Your task to perform on an android device: toggle wifi Image 0: 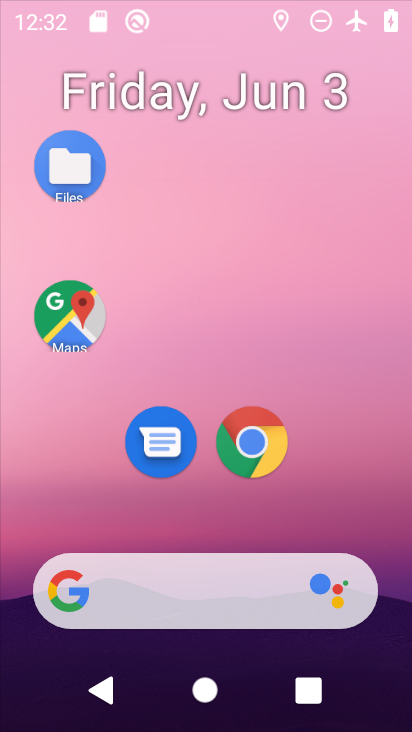
Step 0: click (347, 472)
Your task to perform on an android device: toggle wifi Image 1: 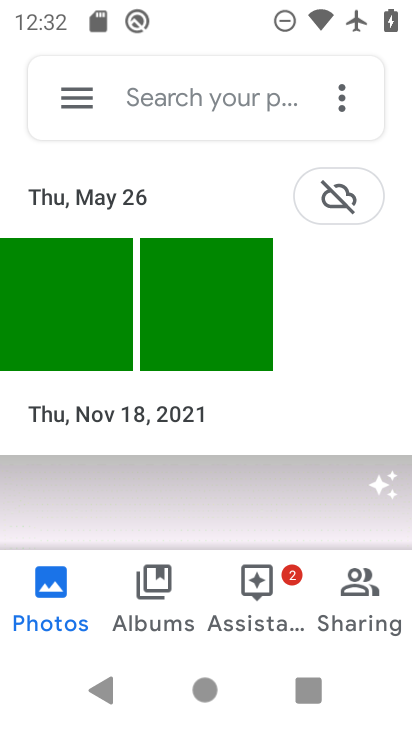
Step 1: press back button
Your task to perform on an android device: toggle wifi Image 2: 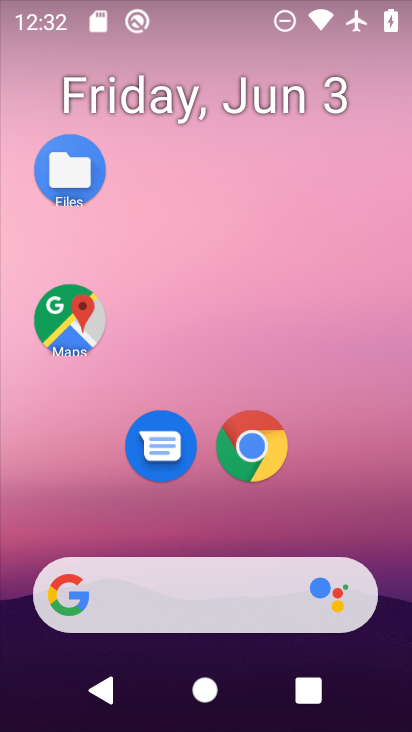
Step 2: drag from (254, 663) to (146, 303)
Your task to perform on an android device: toggle wifi Image 3: 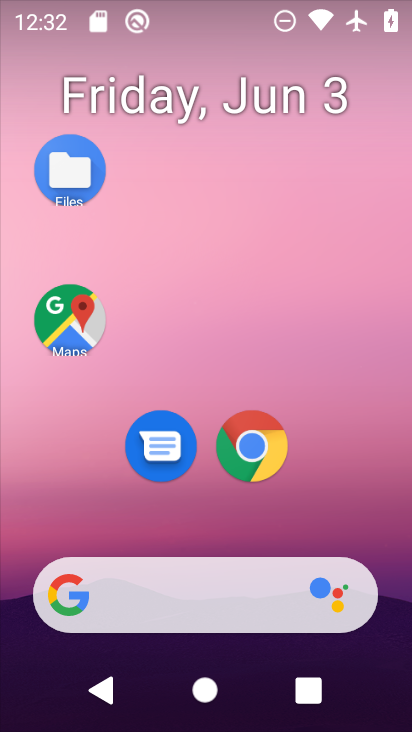
Step 3: drag from (272, 661) to (179, 47)
Your task to perform on an android device: toggle wifi Image 4: 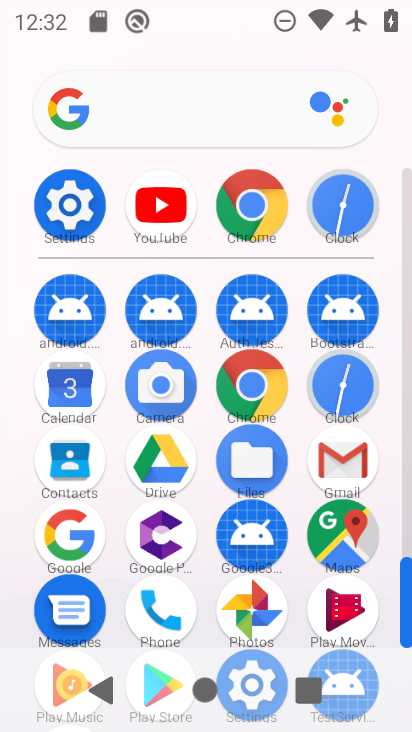
Step 4: click (71, 217)
Your task to perform on an android device: toggle wifi Image 5: 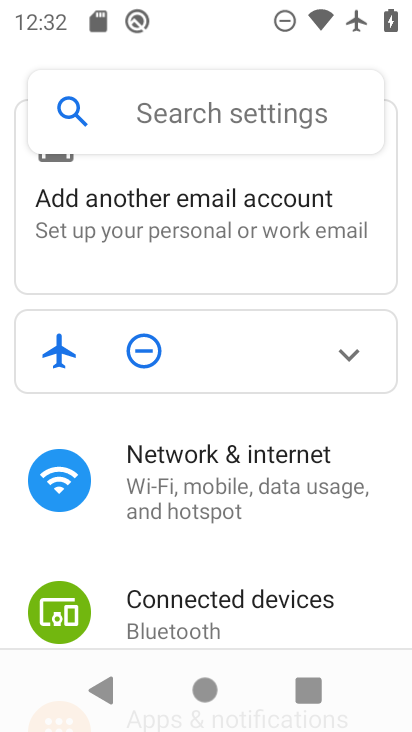
Step 5: click (178, 466)
Your task to perform on an android device: toggle wifi Image 6: 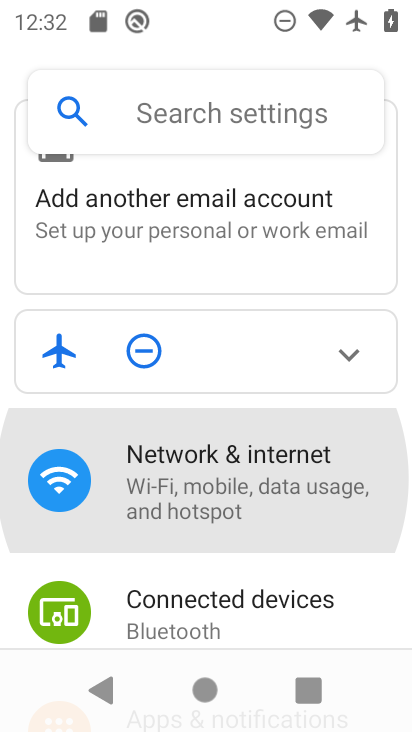
Step 6: click (180, 468)
Your task to perform on an android device: toggle wifi Image 7: 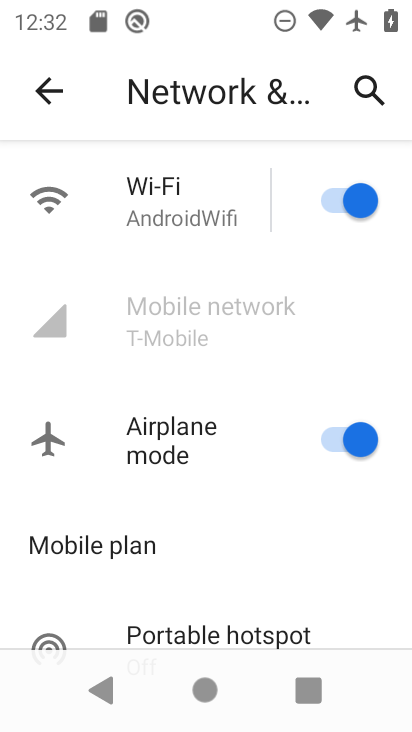
Step 7: click (343, 195)
Your task to perform on an android device: toggle wifi Image 8: 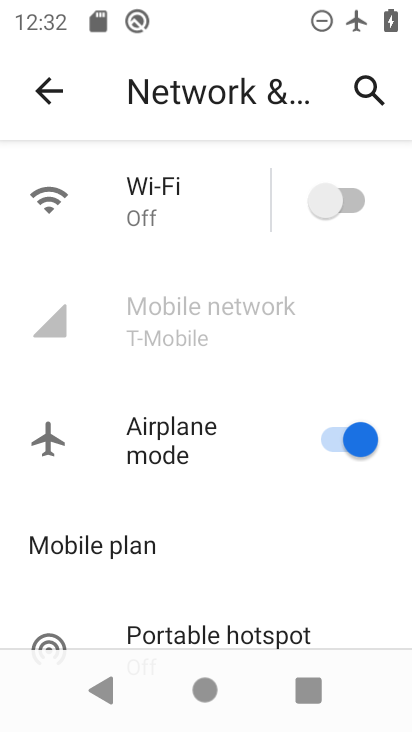
Step 8: task complete